Your task to perform on an android device: What's the weather going to be this weekend? Image 0: 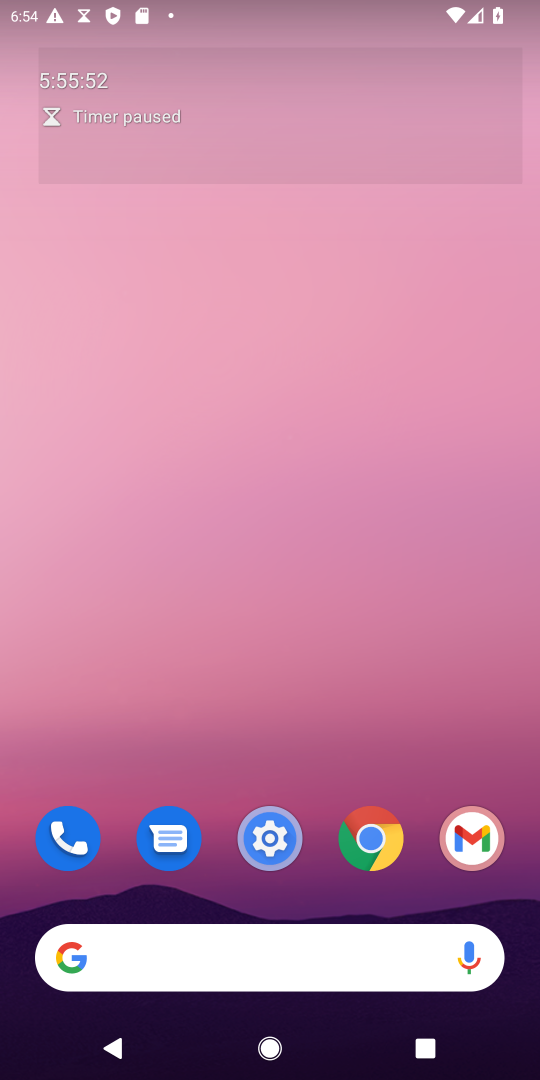
Step 0: press home button
Your task to perform on an android device: What's the weather going to be this weekend? Image 1: 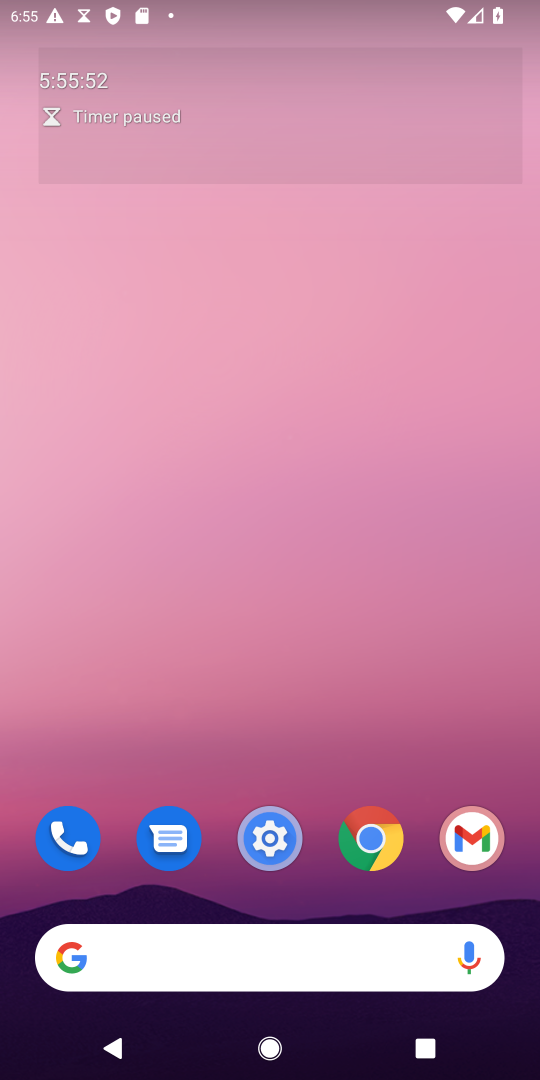
Step 1: press home button
Your task to perform on an android device: What's the weather going to be this weekend? Image 2: 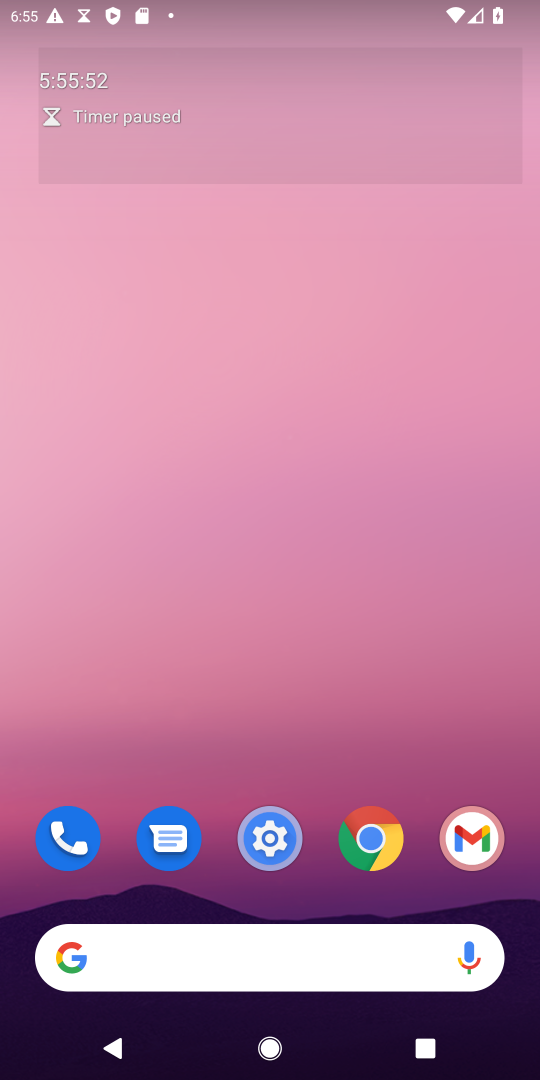
Step 2: drag from (203, 692) to (279, 6)
Your task to perform on an android device: What's the weather going to be this weekend? Image 3: 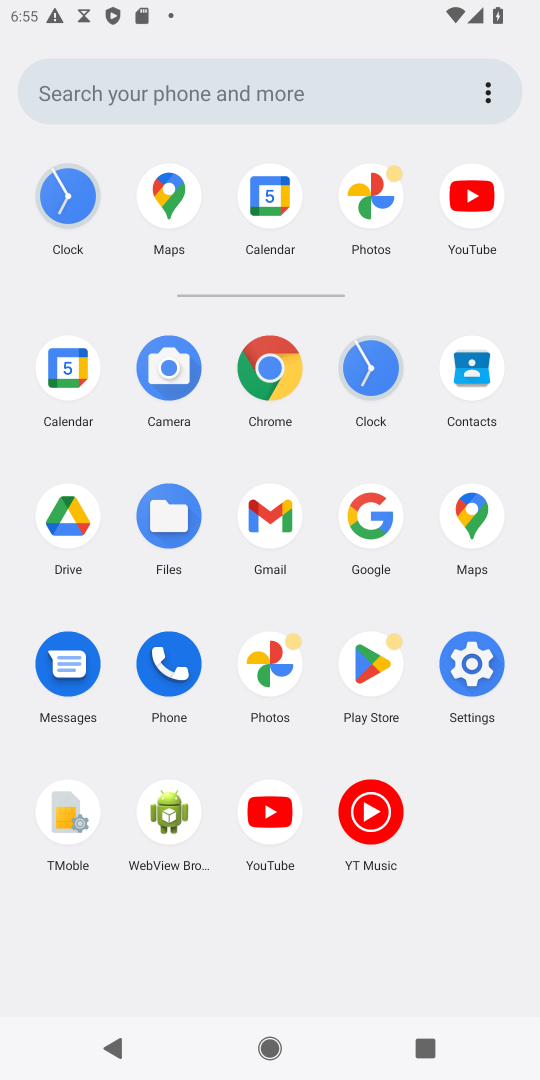
Step 3: click (380, 532)
Your task to perform on an android device: What's the weather going to be this weekend? Image 4: 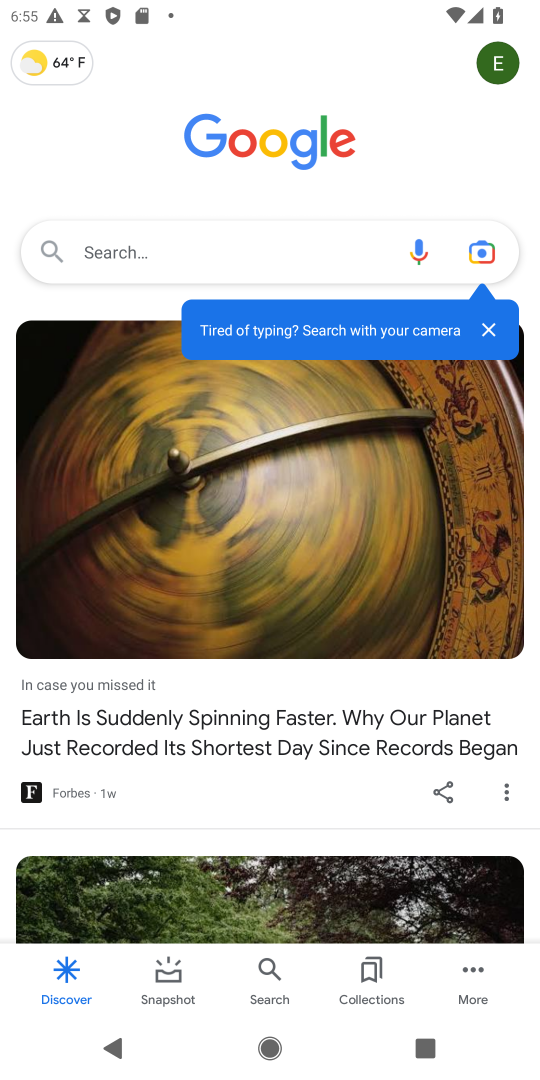
Step 4: type "What's the weather going to be this weekend?"
Your task to perform on an android device: What's the weather going to be this weekend? Image 5: 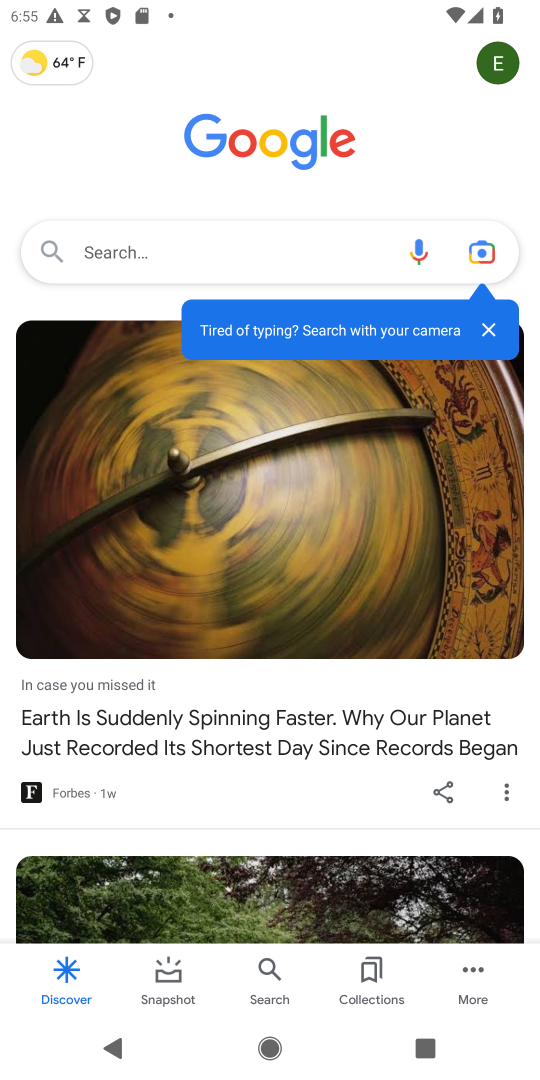
Step 5: click (144, 253)
Your task to perform on an android device: What's the weather going to be this weekend? Image 6: 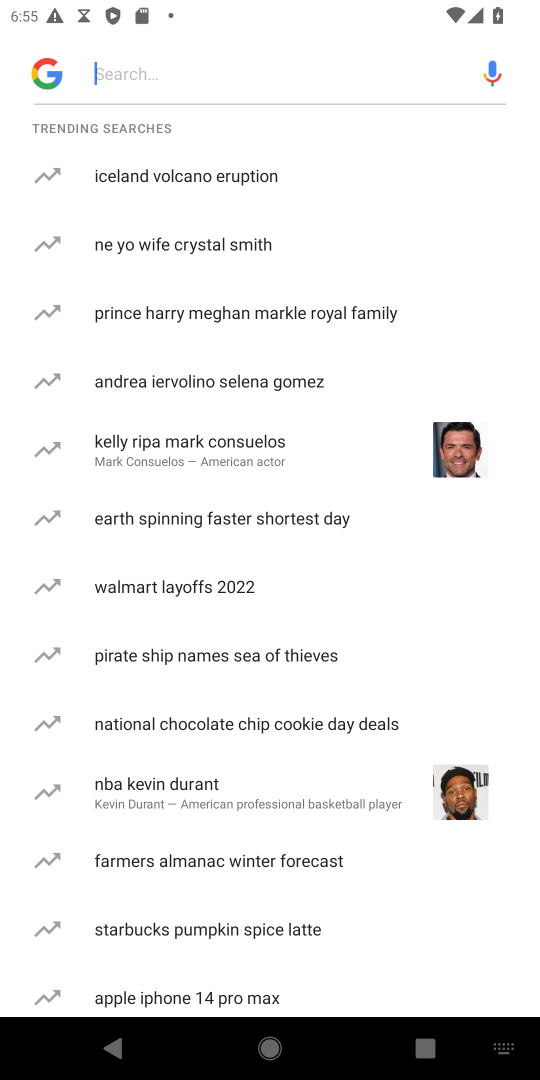
Step 6: type "What's the weather going to be this weekend?"
Your task to perform on an android device: What's the weather going to be this weekend? Image 7: 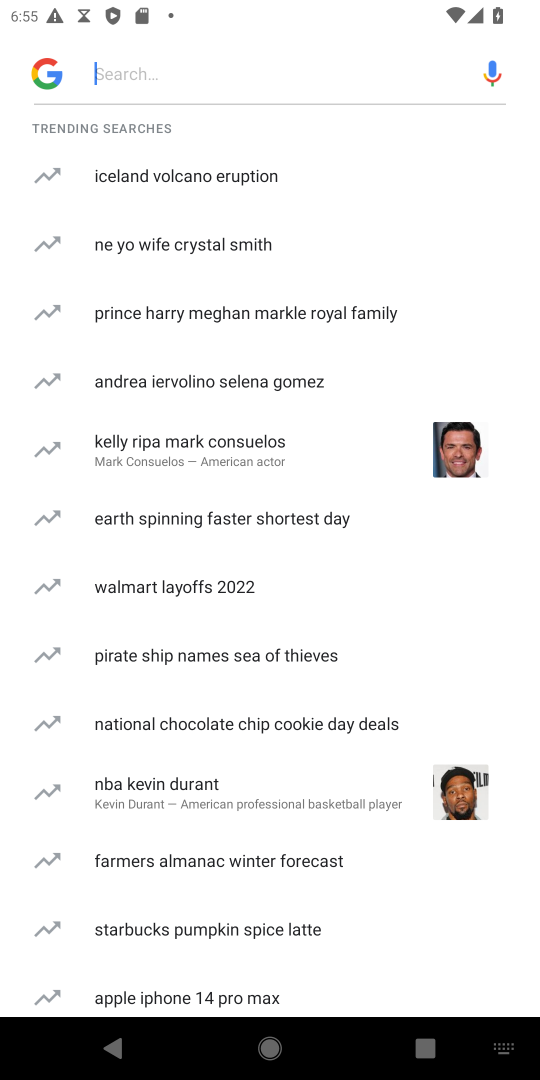
Step 7: click (141, 69)
Your task to perform on an android device: What's the weather going to be this weekend? Image 8: 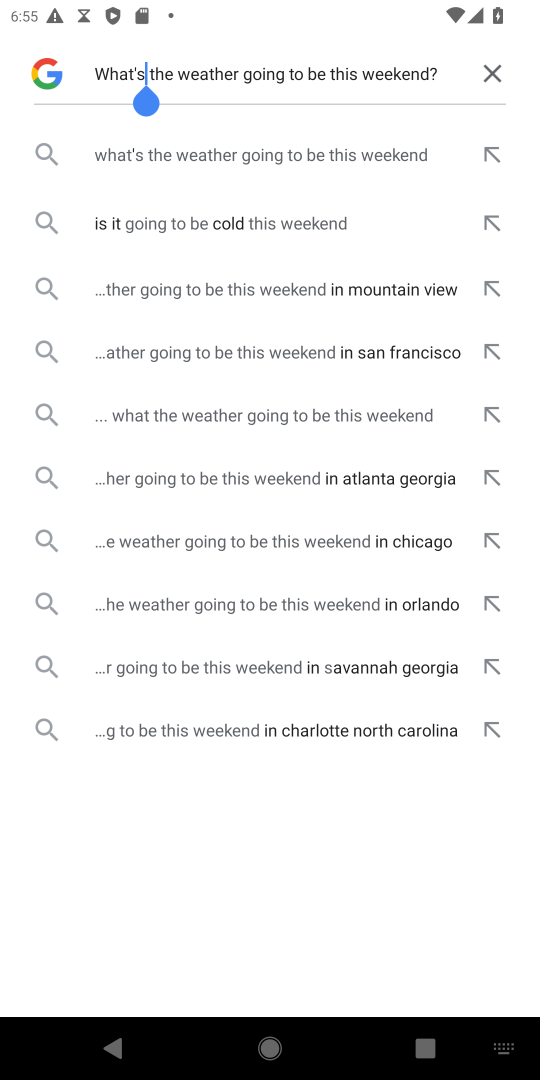
Step 8: click (116, 75)
Your task to perform on an android device: What's the weather going to be this weekend? Image 9: 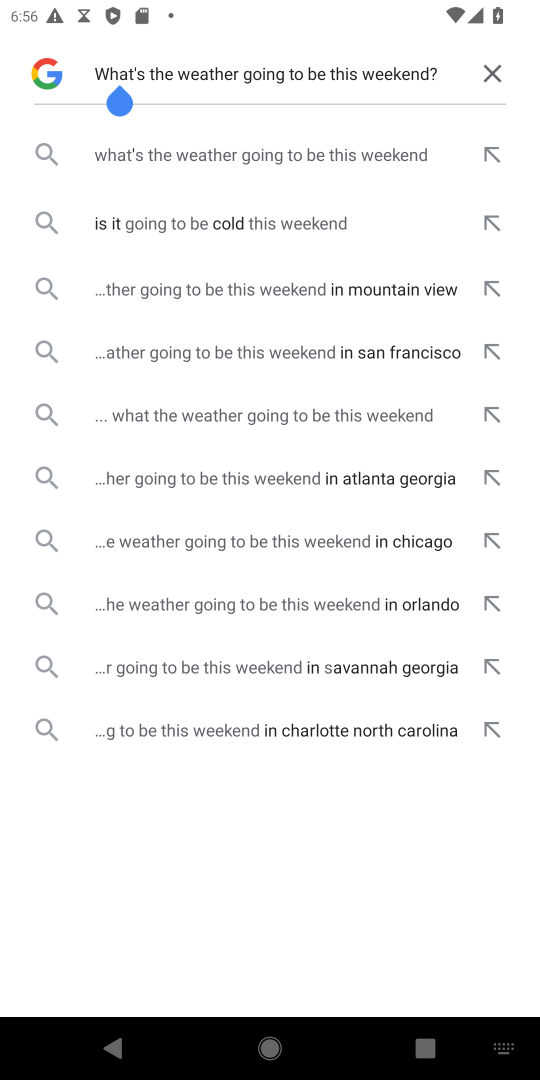
Step 9: press enter
Your task to perform on an android device: What's the weather going to be this weekend? Image 10: 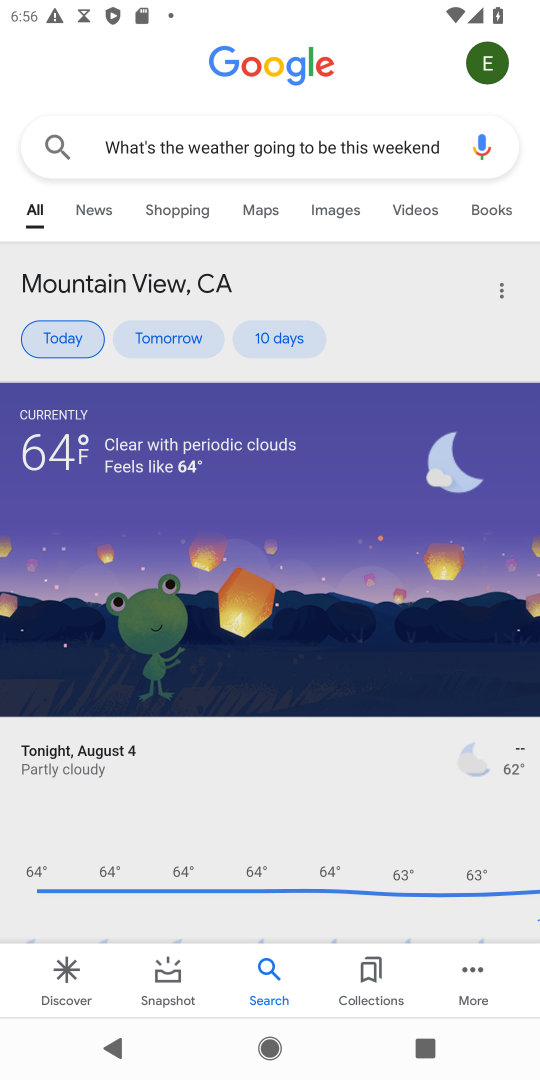
Step 10: task complete